Your task to perform on an android device: See recent photos Image 0: 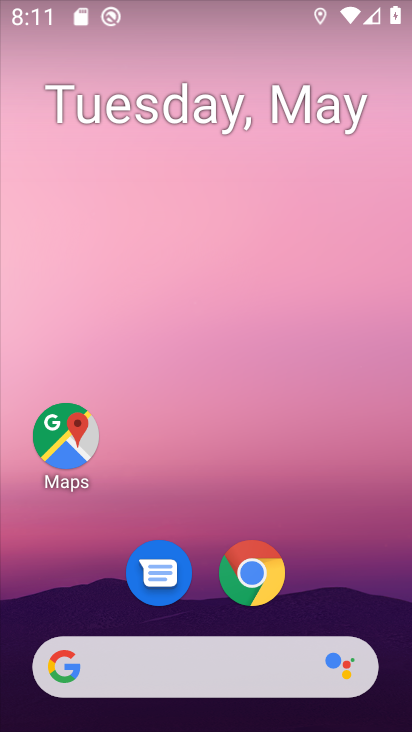
Step 0: drag from (386, 638) to (389, 200)
Your task to perform on an android device: See recent photos Image 1: 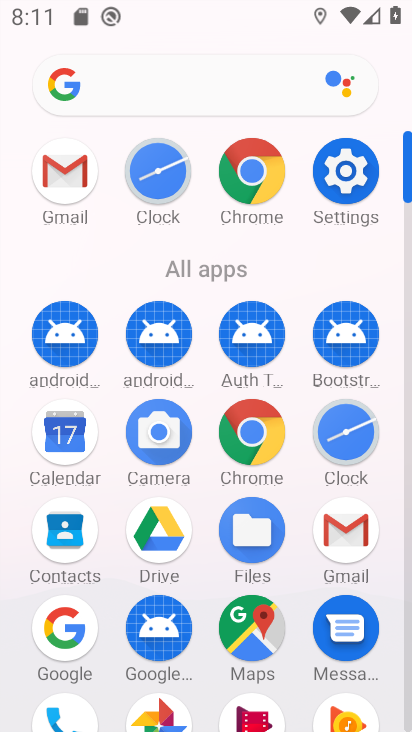
Step 1: click (157, 705)
Your task to perform on an android device: See recent photos Image 2: 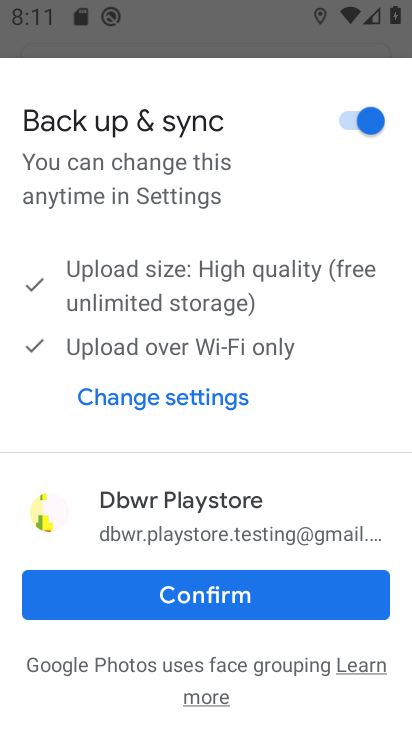
Step 2: click (205, 596)
Your task to perform on an android device: See recent photos Image 3: 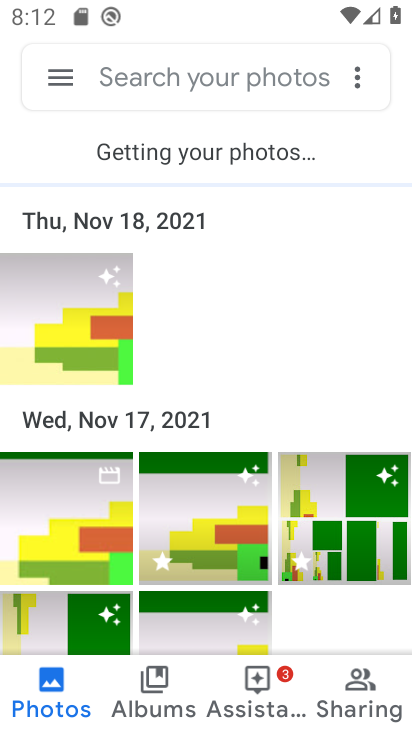
Step 3: click (67, 316)
Your task to perform on an android device: See recent photos Image 4: 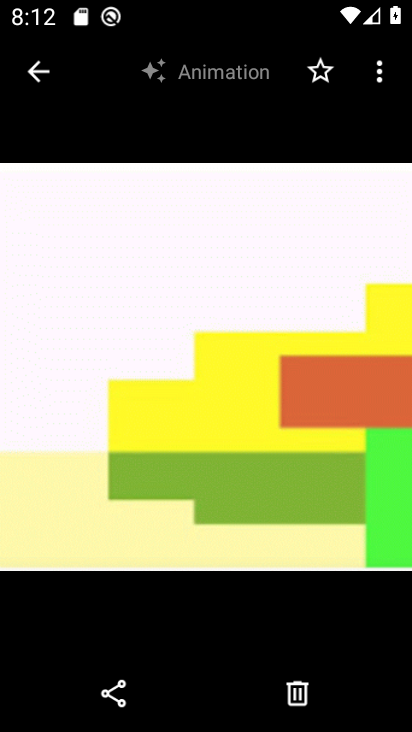
Step 4: click (29, 79)
Your task to perform on an android device: See recent photos Image 5: 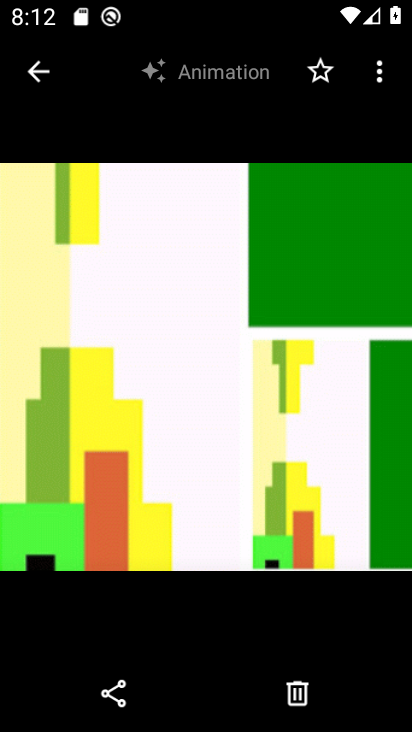
Step 5: task complete